Your task to perform on an android device: toggle sleep mode Image 0: 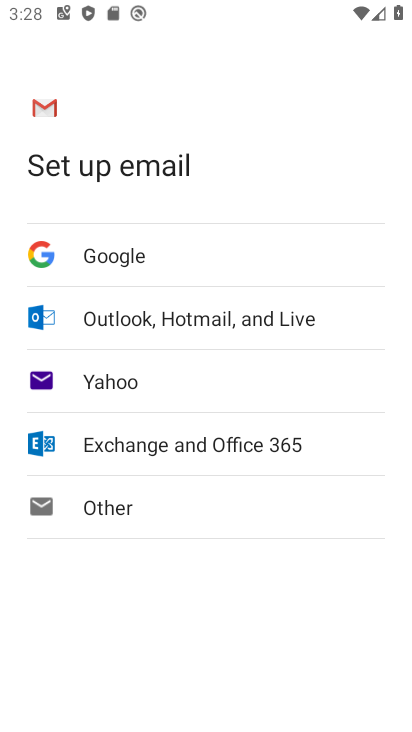
Step 0: drag from (239, 7) to (346, 655)
Your task to perform on an android device: toggle sleep mode Image 1: 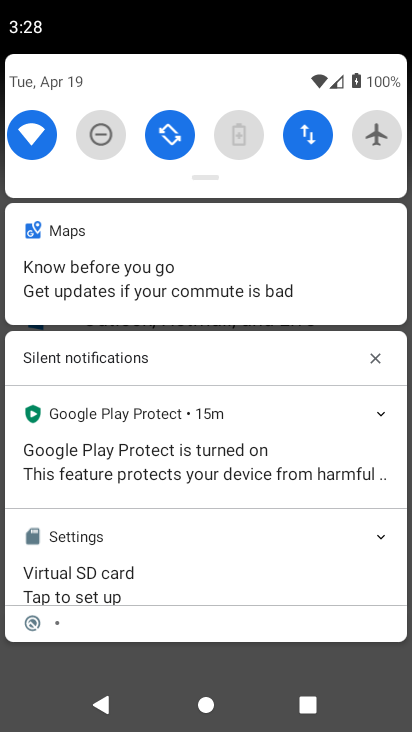
Step 1: drag from (201, 67) to (287, 631)
Your task to perform on an android device: toggle sleep mode Image 2: 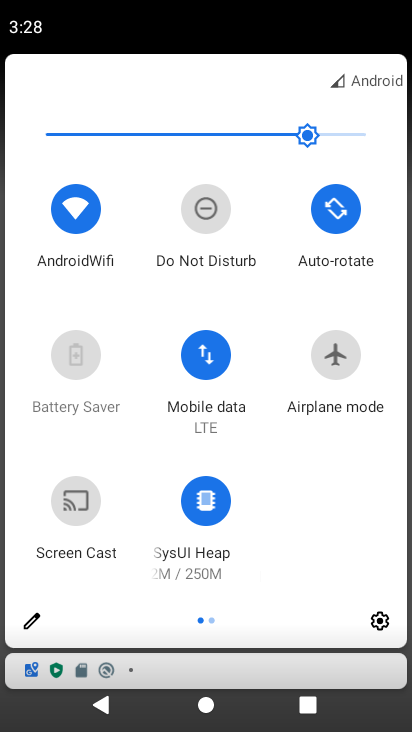
Step 2: click (378, 631)
Your task to perform on an android device: toggle sleep mode Image 3: 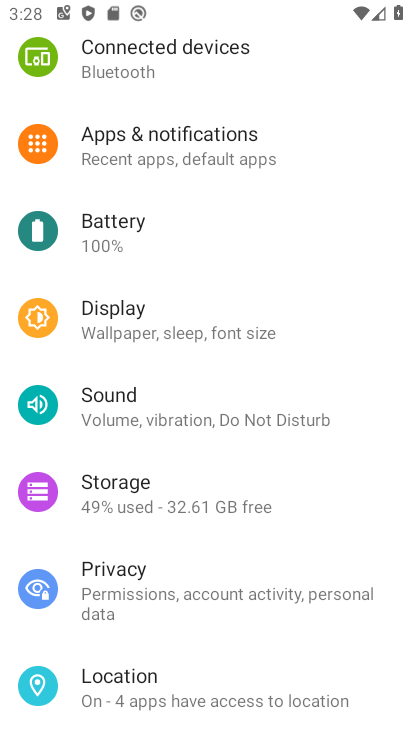
Step 3: task complete